Your task to perform on an android device: Go to battery settings Image 0: 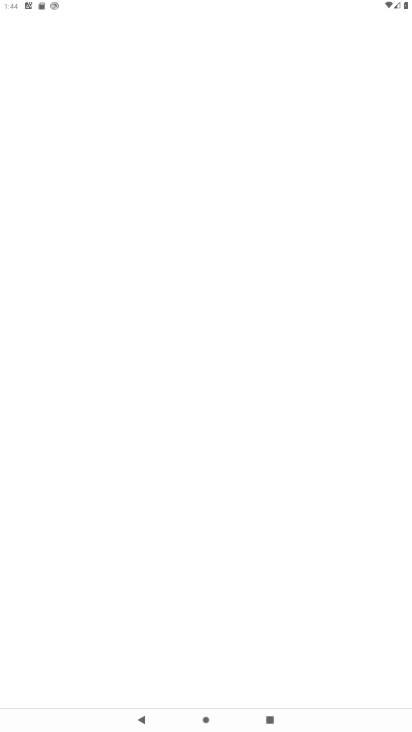
Step 0: press home button
Your task to perform on an android device: Go to battery settings Image 1: 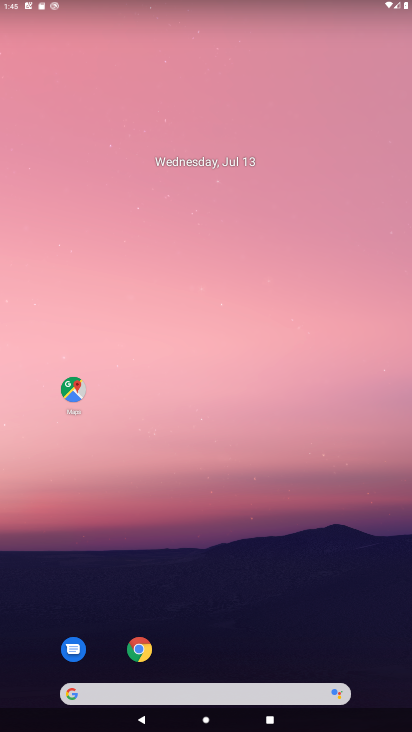
Step 1: drag from (298, 637) to (296, 118)
Your task to perform on an android device: Go to battery settings Image 2: 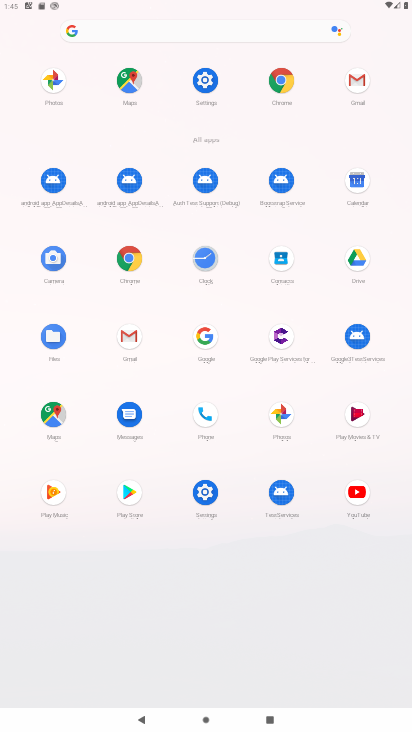
Step 2: click (196, 500)
Your task to perform on an android device: Go to battery settings Image 3: 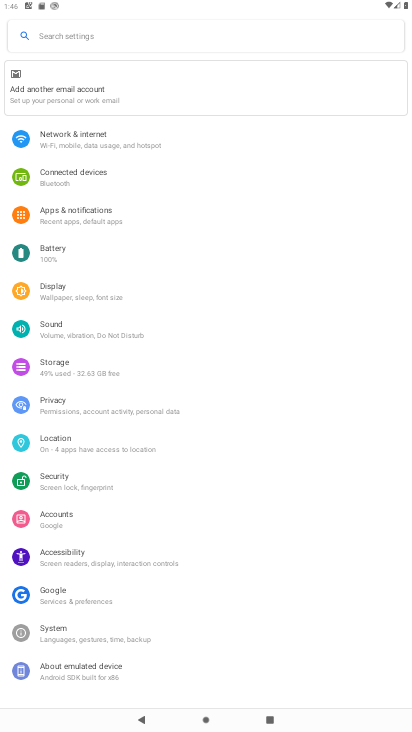
Step 3: click (80, 250)
Your task to perform on an android device: Go to battery settings Image 4: 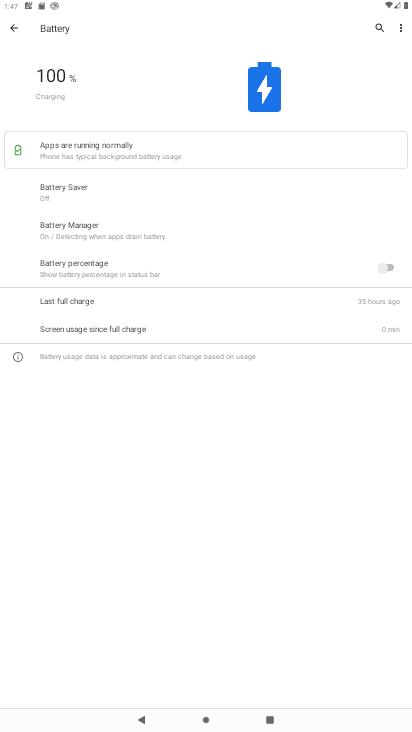
Step 4: task complete